Your task to perform on an android device: Go to calendar. Show me events next week Image 0: 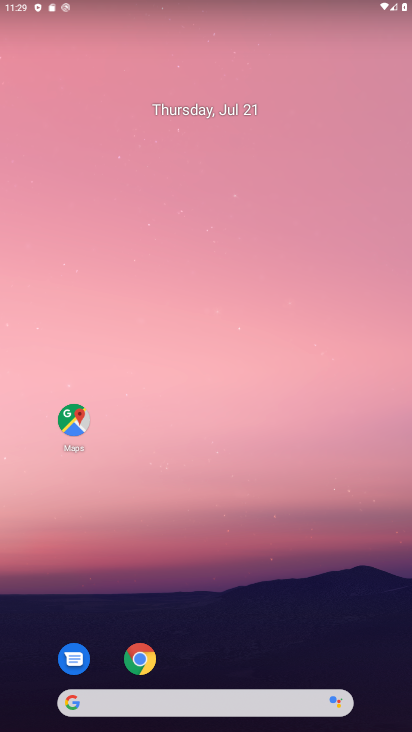
Step 0: click (167, 106)
Your task to perform on an android device: Go to calendar. Show me events next week Image 1: 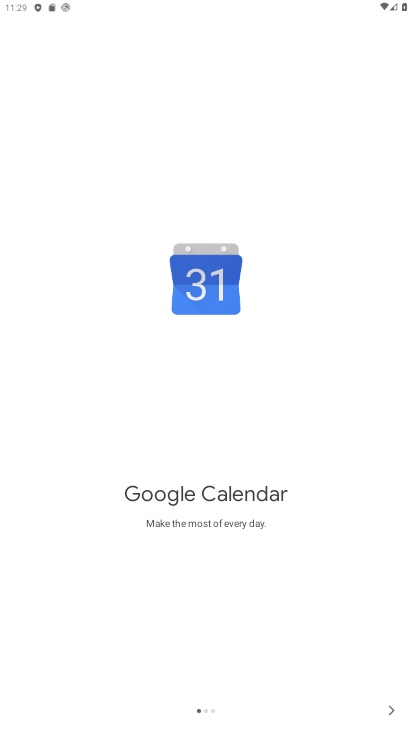
Step 1: click (389, 706)
Your task to perform on an android device: Go to calendar. Show me events next week Image 2: 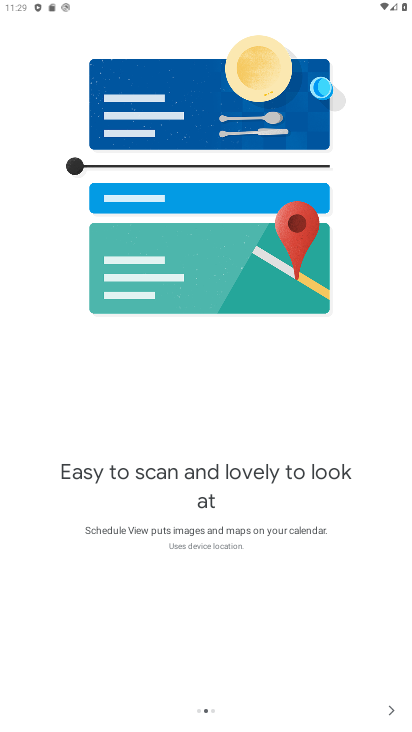
Step 2: click (389, 706)
Your task to perform on an android device: Go to calendar. Show me events next week Image 3: 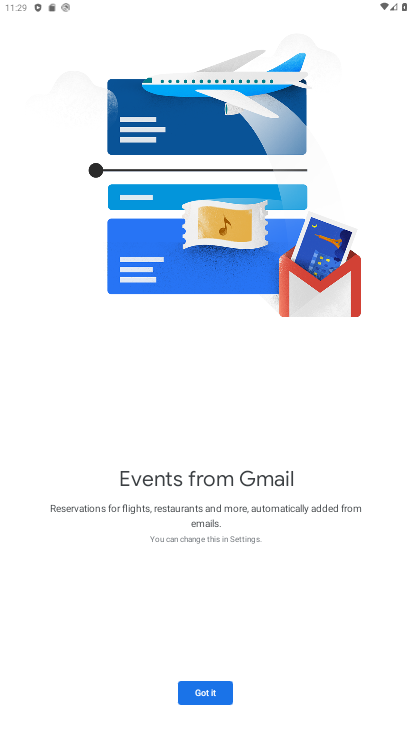
Step 3: click (199, 692)
Your task to perform on an android device: Go to calendar. Show me events next week Image 4: 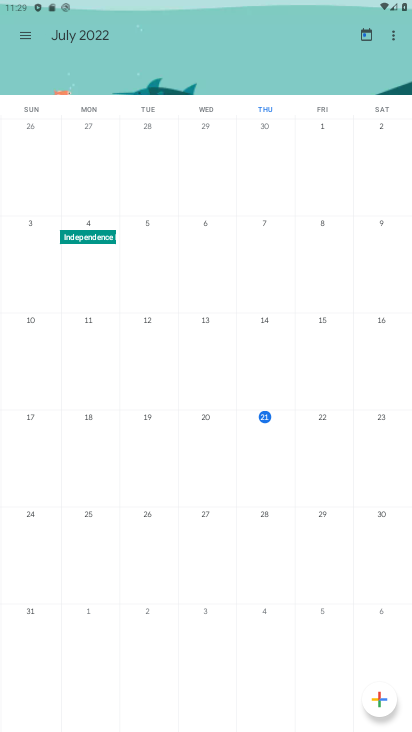
Step 4: click (27, 38)
Your task to perform on an android device: Go to calendar. Show me events next week Image 5: 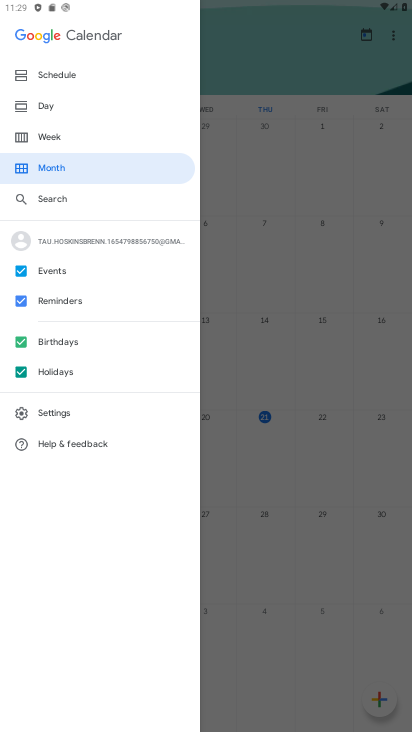
Step 5: click (19, 302)
Your task to perform on an android device: Go to calendar. Show me events next week Image 6: 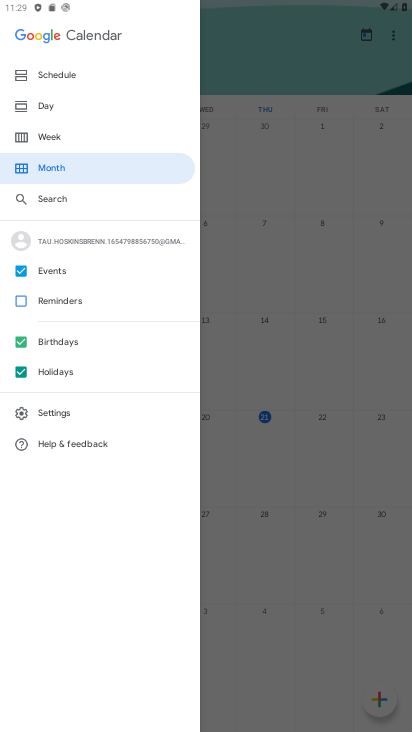
Step 6: click (18, 340)
Your task to perform on an android device: Go to calendar. Show me events next week Image 7: 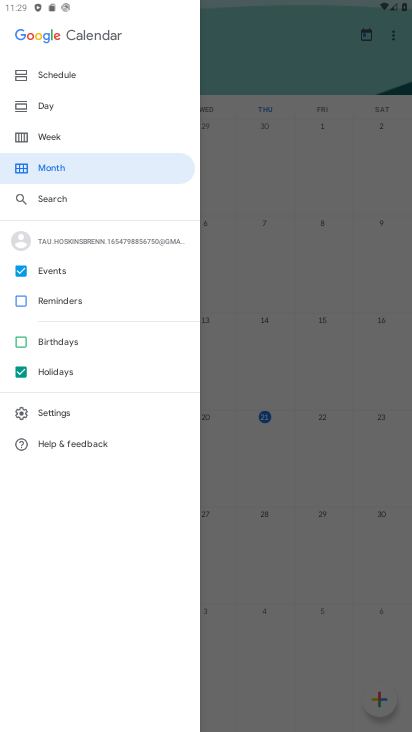
Step 7: click (21, 371)
Your task to perform on an android device: Go to calendar. Show me events next week Image 8: 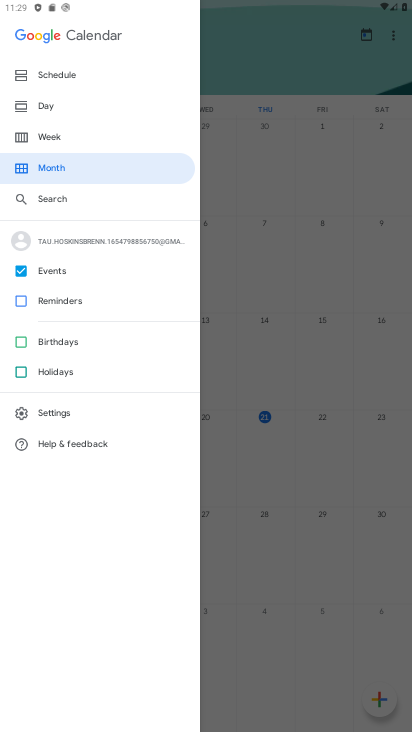
Step 8: click (106, 143)
Your task to perform on an android device: Go to calendar. Show me events next week Image 9: 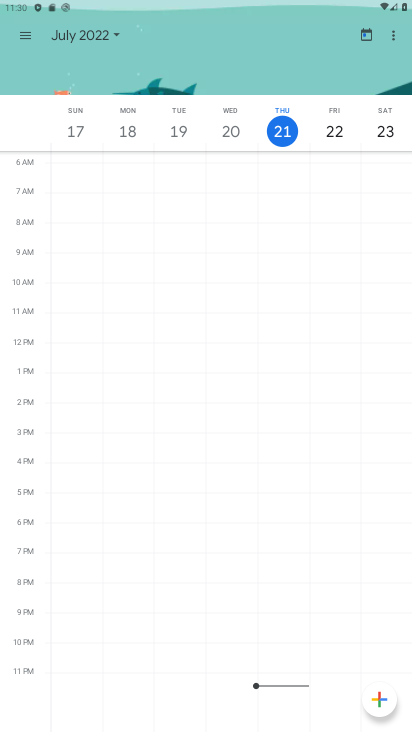
Step 9: task complete